Your task to perform on an android device: Add lg ultragear to the cart on target.com Image 0: 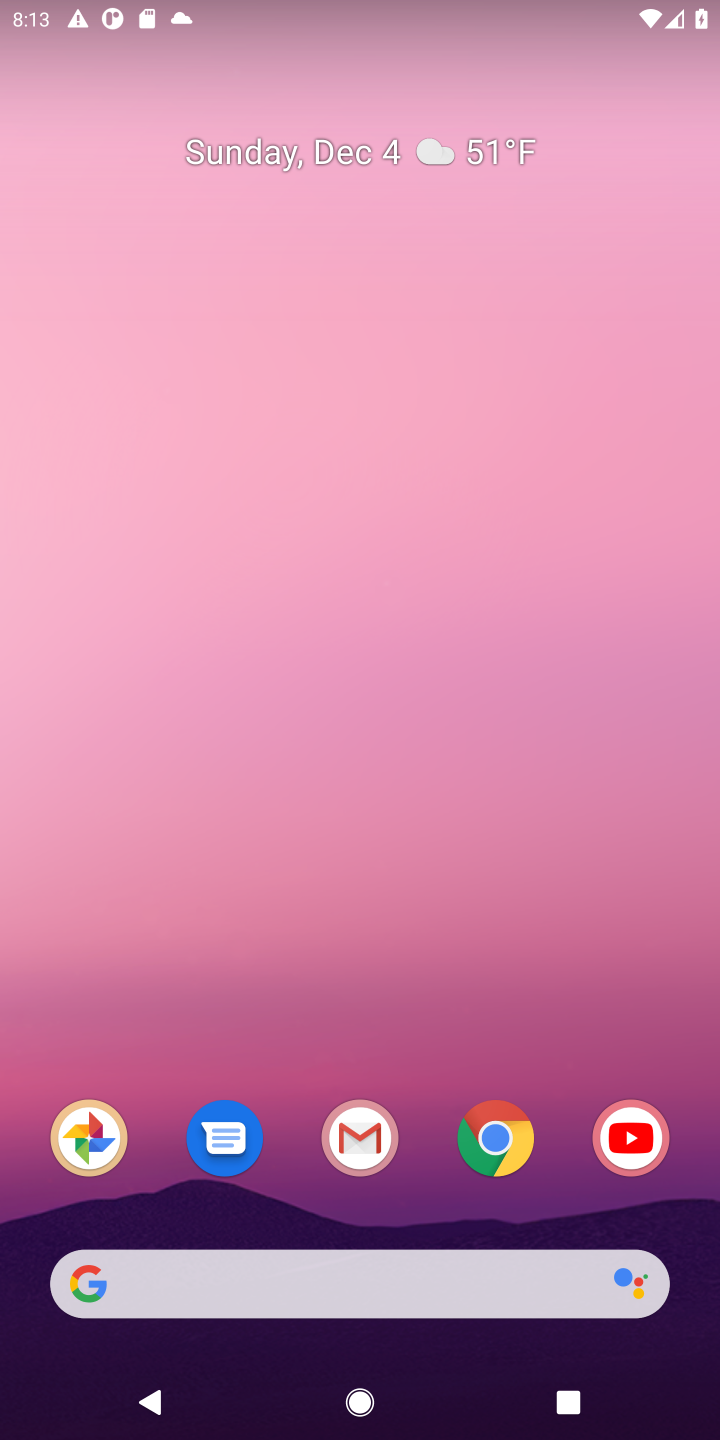
Step 0: click (517, 1144)
Your task to perform on an android device: Add lg ultragear to the cart on target.com Image 1: 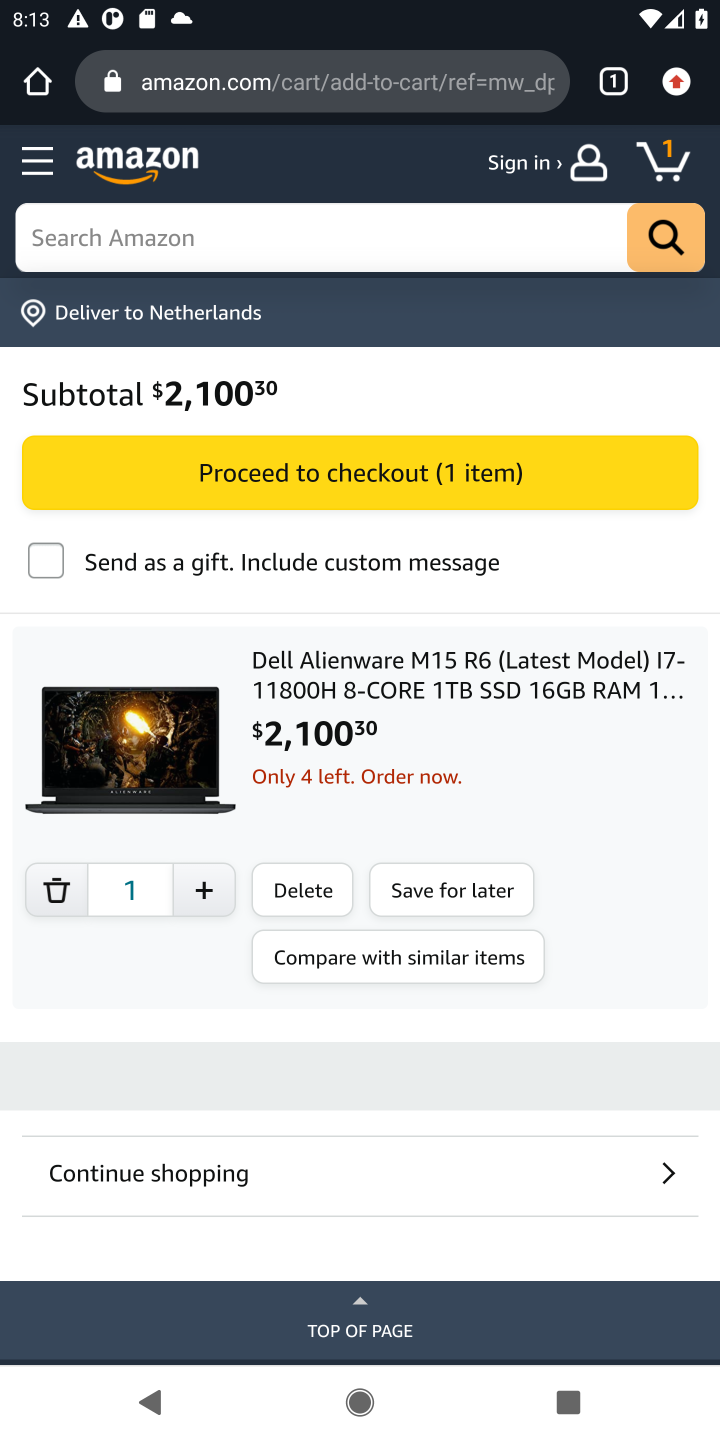
Step 1: click (416, 66)
Your task to perform on an android device: Add lg ultragear to the cart on target.com Image 2: 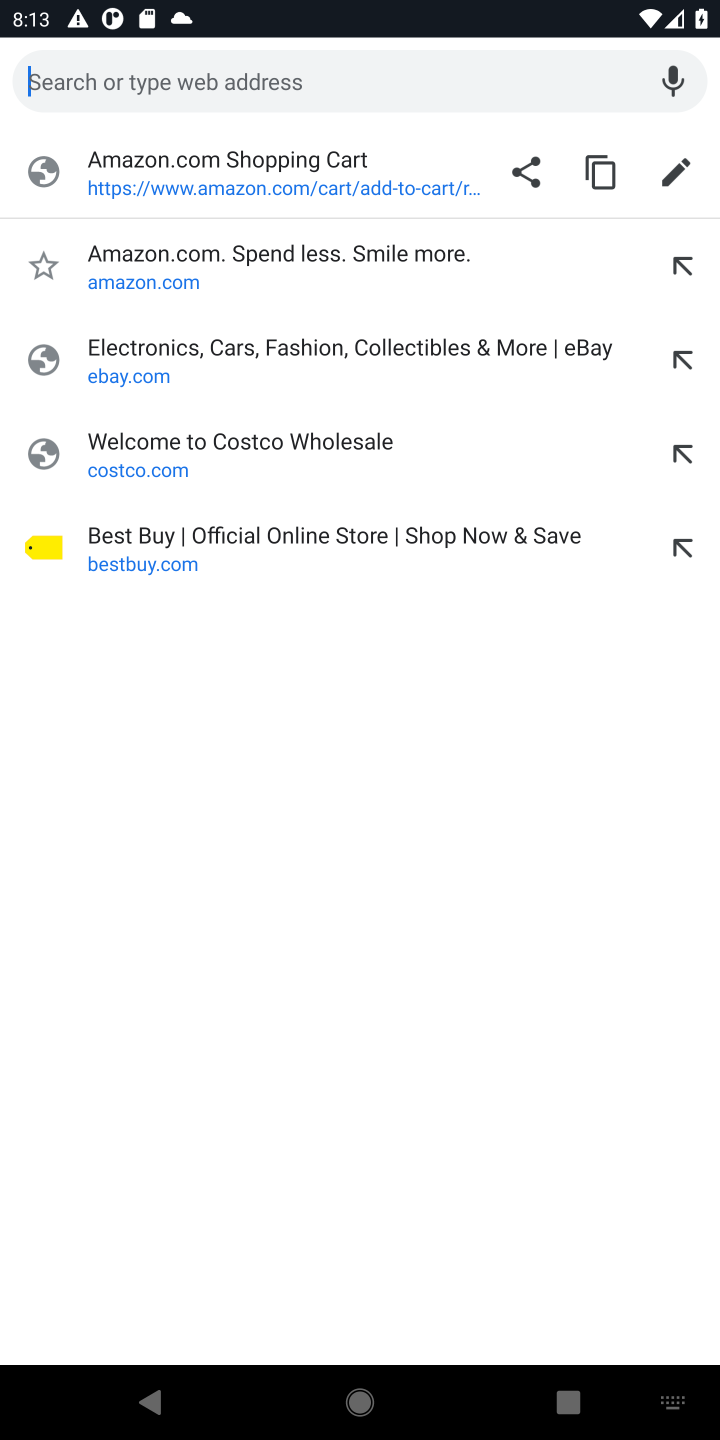
Step 2: type "target.com"
Your task to perform on an android device: Add lg ultragear to the cart on target.com Image 3: 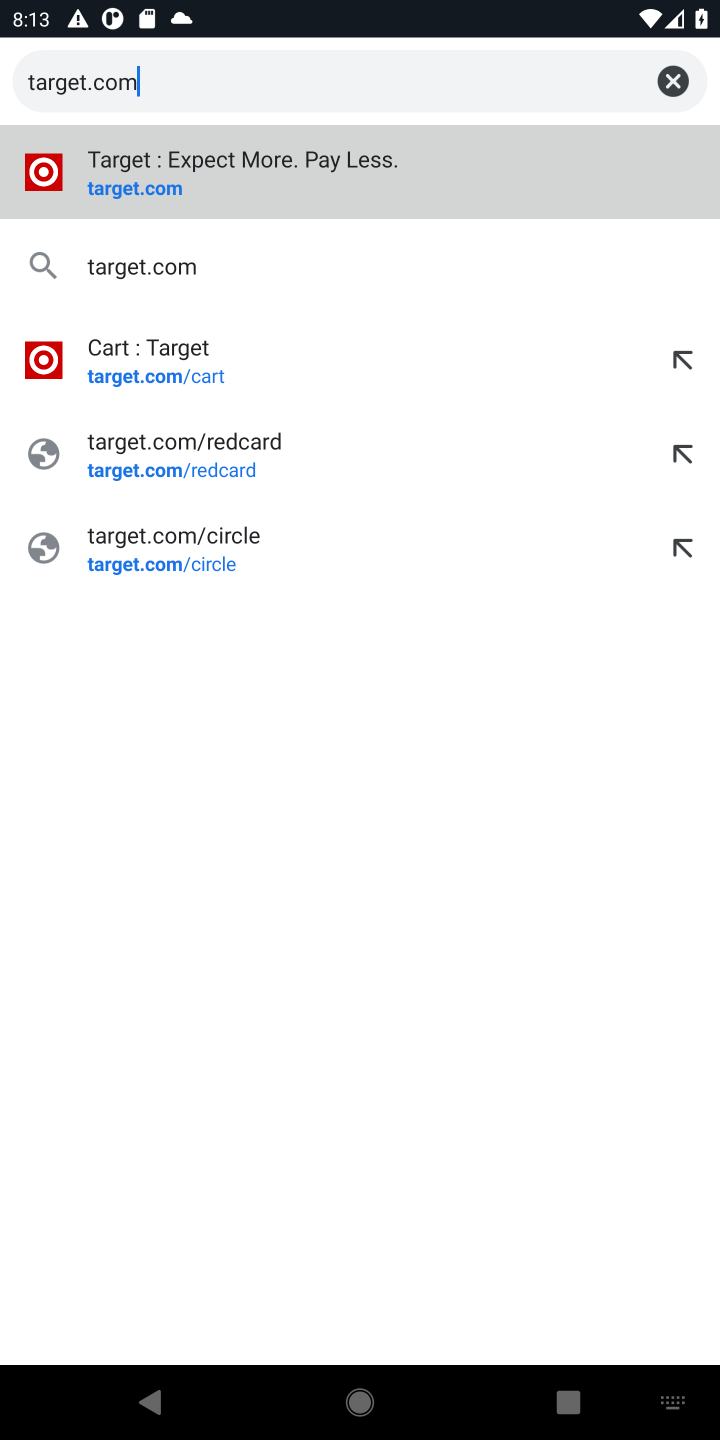
Step 3: press enter
Your task to perform on an android device: Add lg ultragear to the cart on target.com Image 4: 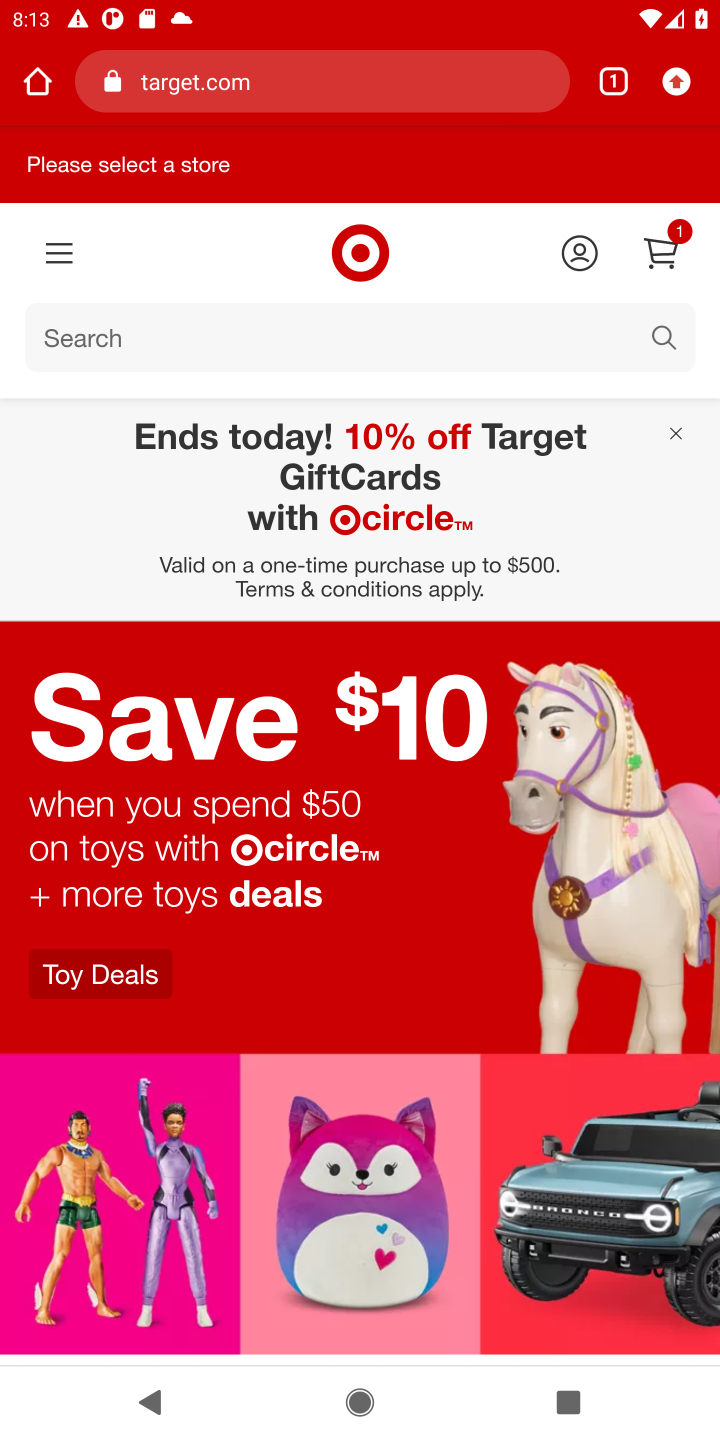
Step 4: click (661, 331)
Your task to perform on an android device: Add lg ultragear to the cart on target.com Image 5: 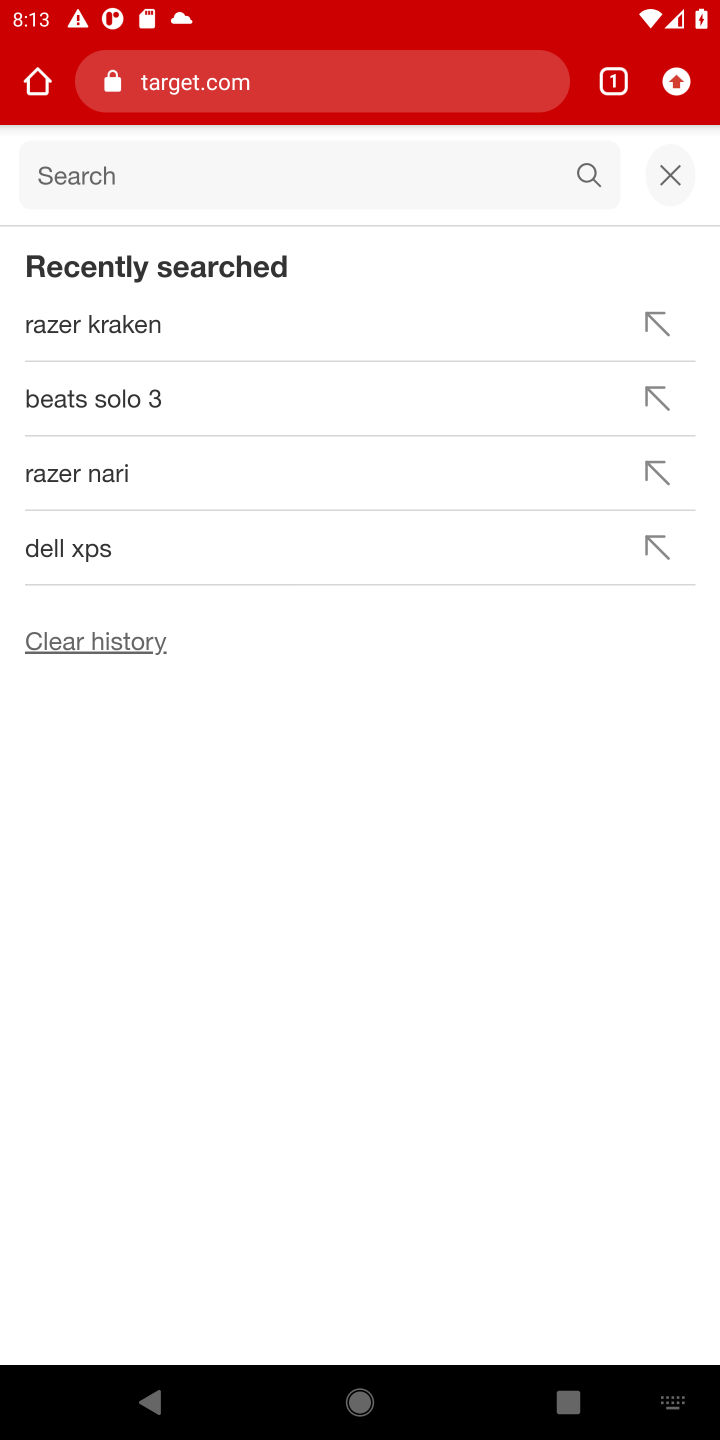
Step 5: type "lg ultragear"
Your task to perform on an android device: Add lg ultragear to the cart on target.com Image 6: 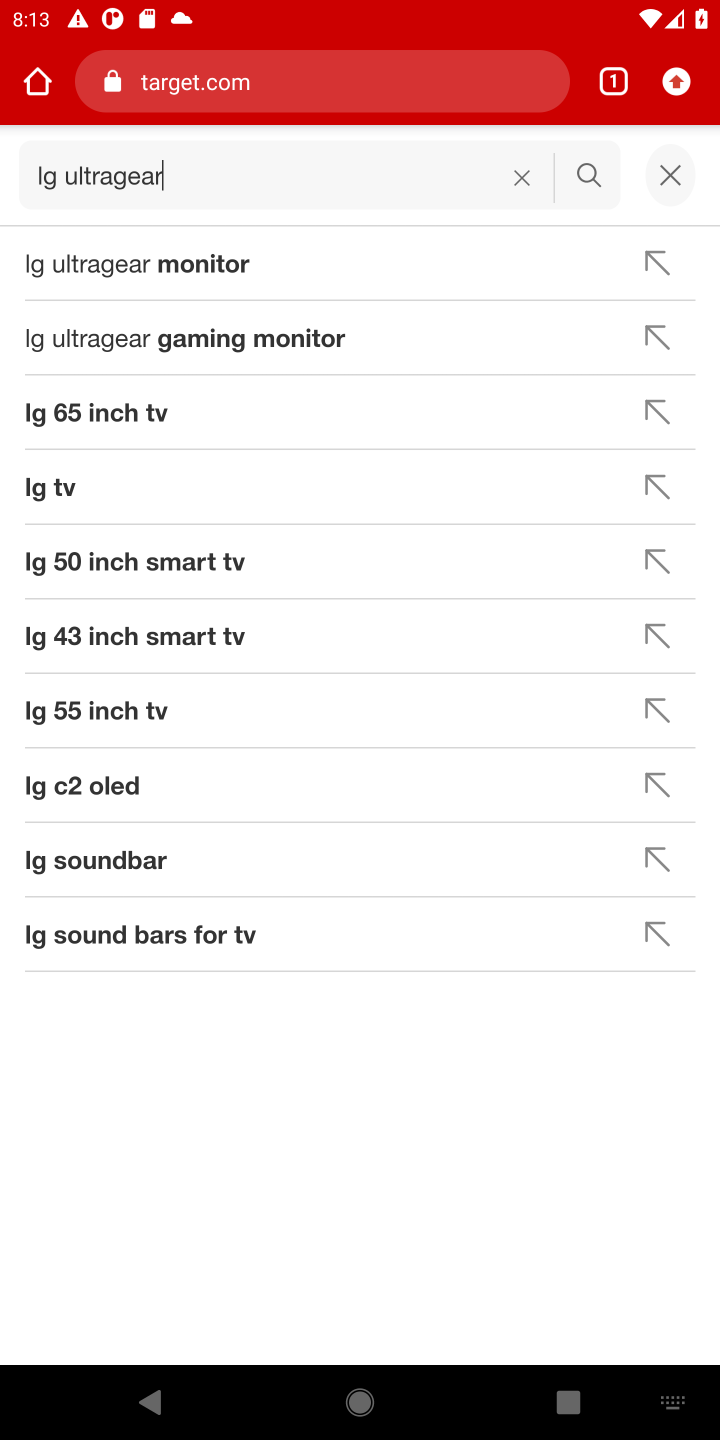
Step 6: press enter
Your task to perform on an android device: Add lg ultragear to the cart on target.com Image 7: 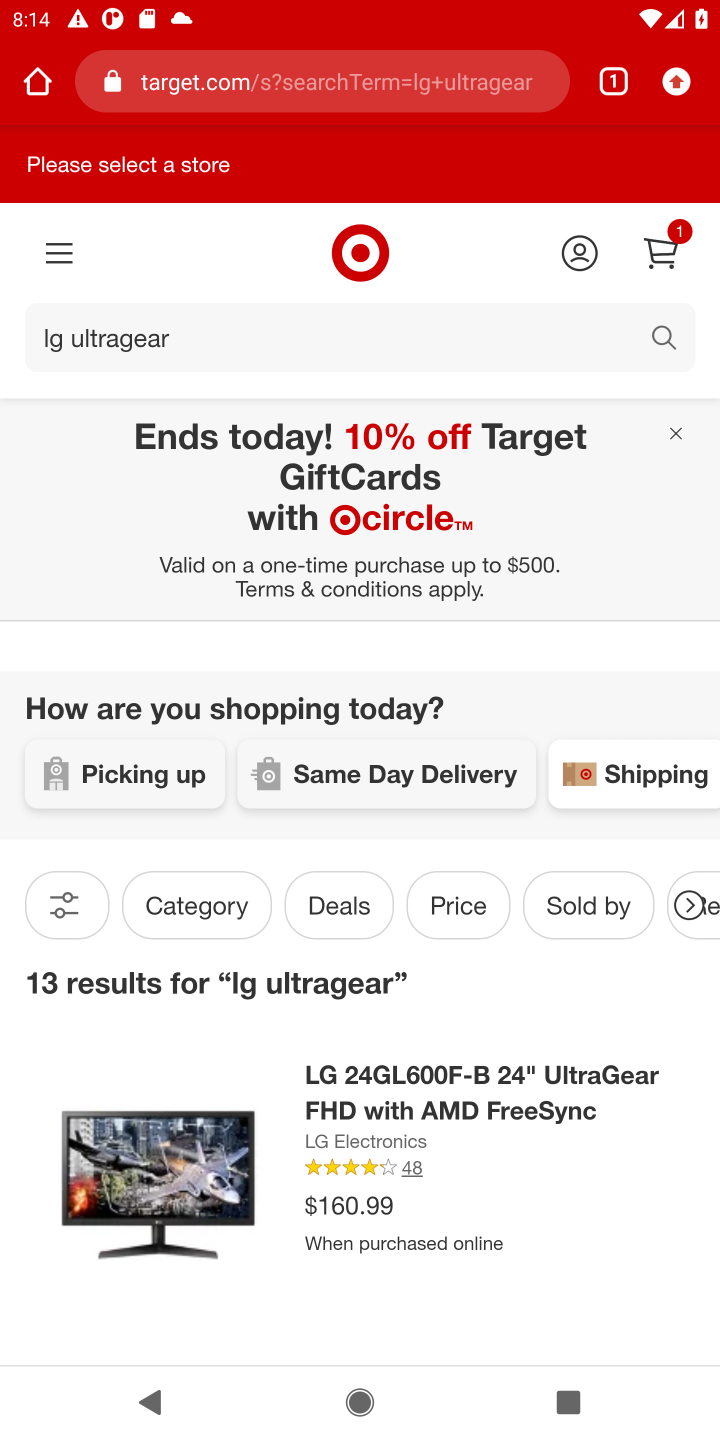
Step 7: task complete